Your task to perform on an android device: Open Chrome and go to settings Image 0: 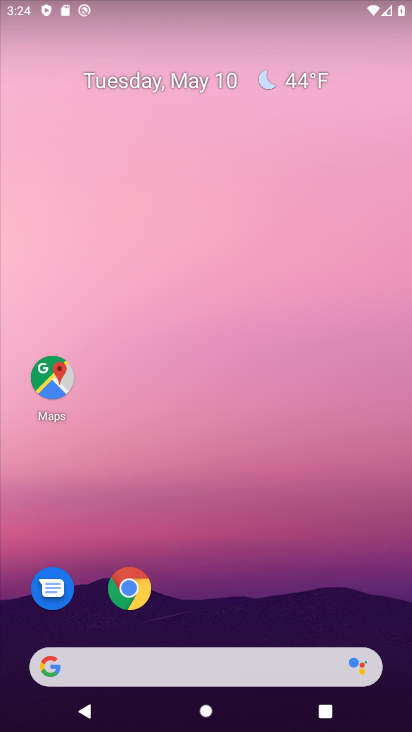
Step 0: click (219, 128)
Your task to perform on an android device: Open Chrome and go to settings Image 1: 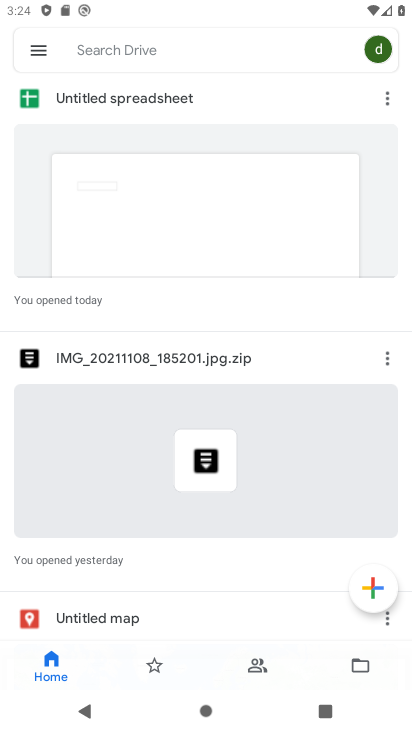
Step 1: press home button
Your task to perform on an android device: Open Chrome and go to settings Image 2: 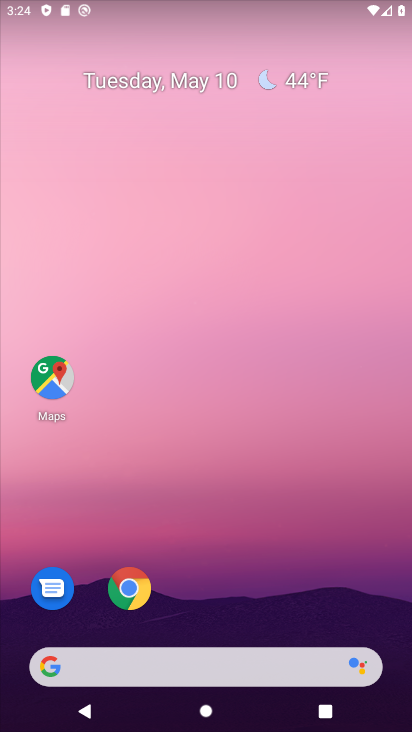
Step 2: click (138, 590)
Your task to perform on an android device: Open Chrome and go to settings Image 3: 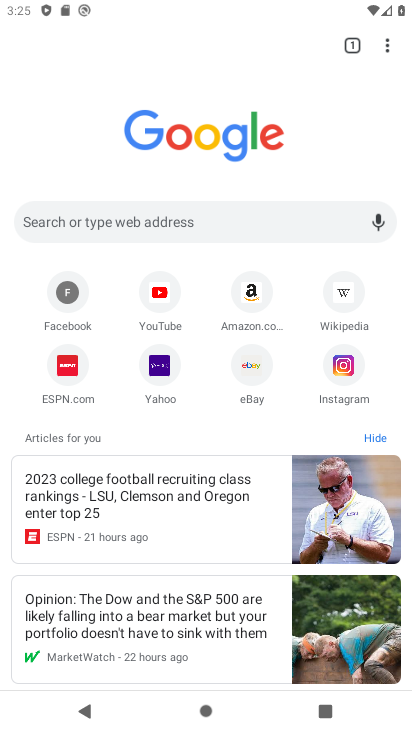
Step 3: click (393, 41)
Your task to perform on an android device: Open Chrome and go to settings Image 4: 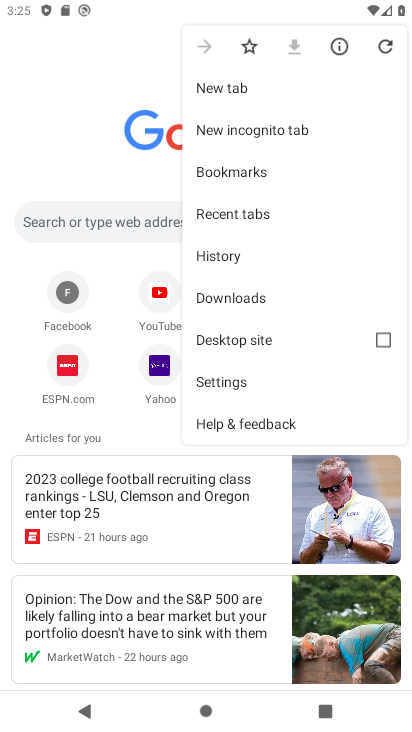
Step 4: click (225, 374)
Your task to perform on an android device: Open Chrome and go to settings Image 5: 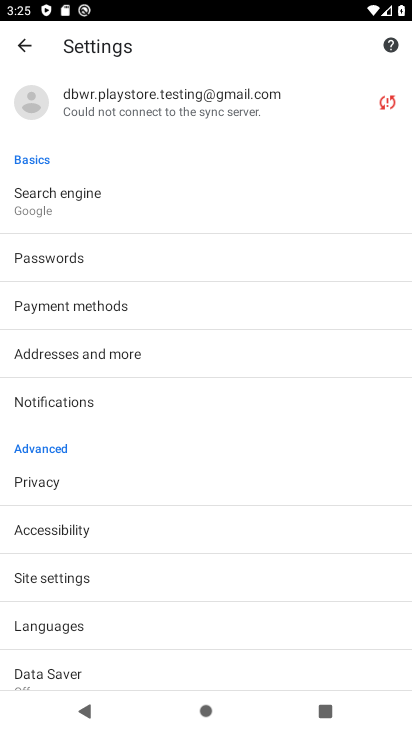
Step 5: task complete